Your task to perform on an android device: open app "Roku - Official Remote Control" (install if not already installed), go to login, and select forgot password Image 0: 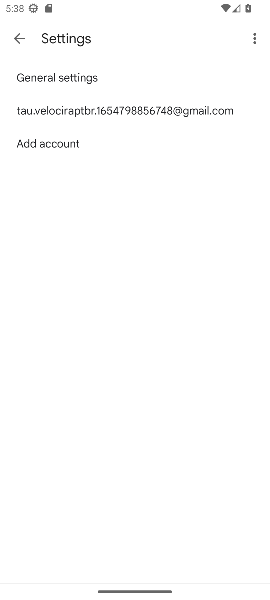
Step 0: press home button
Your task to perform on an android device: open app "Roku - Official Remote Control" (install if not already installed), go to login, and select forgot password Image 1: 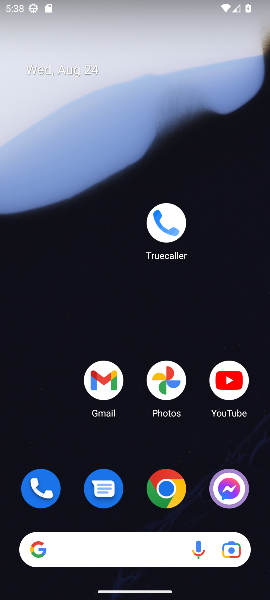
Step 1: drag from (120, 444) to (124, 40)
Your task to perform on an android device: open app "Roku - Official Remote Control" (install if not already installed), go to login, and select forgot password Image 2: 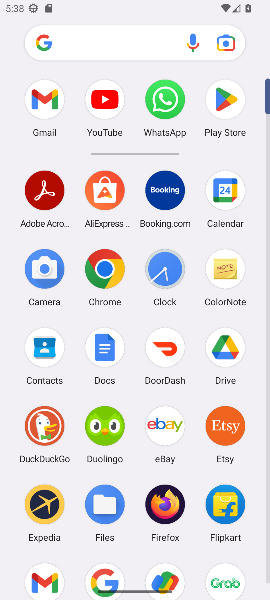
Step 2: click (213, 93)
Your task to perform on an android device: open app "Roku - Official Remote Control" (install if not already installed), go to login, and select forgot password Image 3: 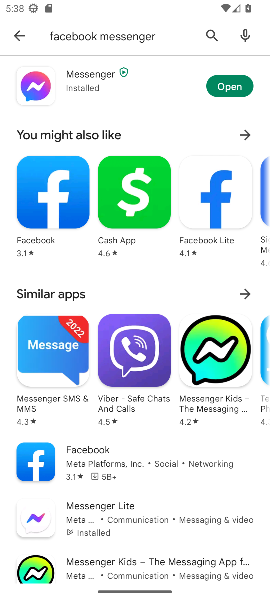
Step 3: click (160, 41)
Your task to perform on an android device: open app "Roku - Official Remote Control" (install if not already installed), go to login, and select forgot password Image 4: 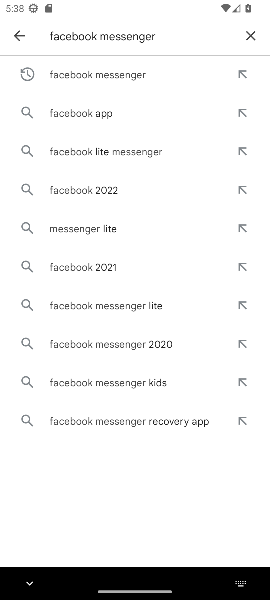
Step 4: click (242, 41)
Your task to perform on an android device: open app "Roku - Official Remote Control" (install if not already installed), go to login, and select forgot password Image 5: 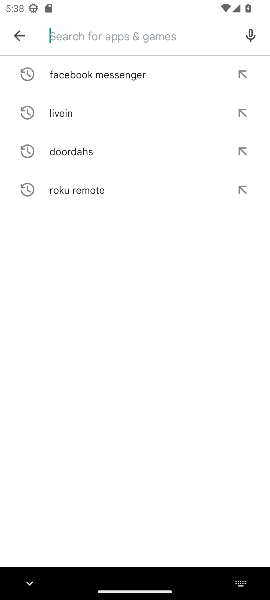
Step 5: type "roku"
Your task to perform on an android device: open app "Roku - Official Remote Control" (install if not already installed), go to login, and select forgot password Image 6: 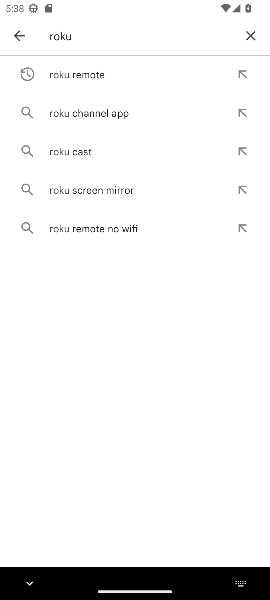
Step 6: click (123, 64)
Your task to perform on an android device: open app "Roku - Official Remote Control" (install if not already installed), go to login, and select forgot password Image 7: 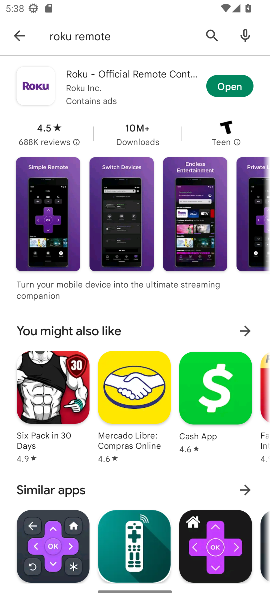
Step 7: click (229, 98)
Your task to perform on an android device: open app "Roku - Official Remote Control" (install if not already installed), go to login, and select forgot password Image 8: 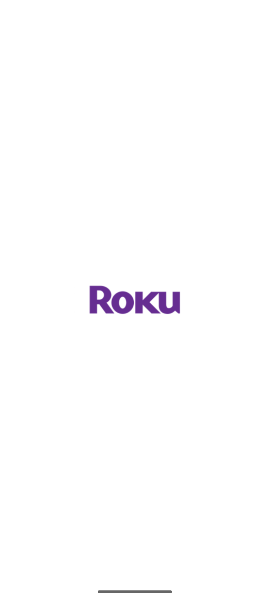
Step 8: task complete